Your task to perform on an android device: Open Youtube and go to the subscriptions tab Image 0: 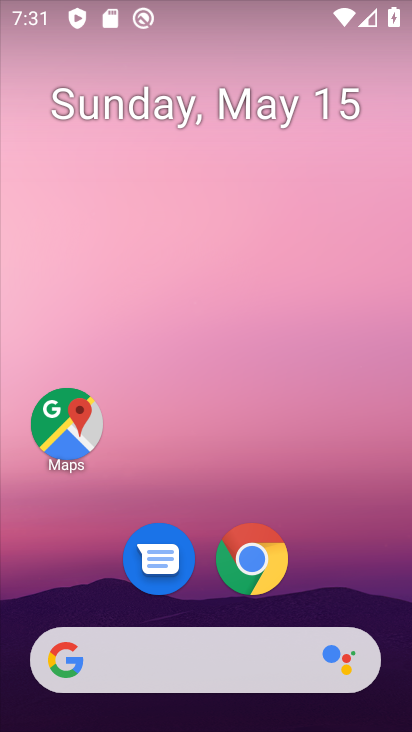
Step 0: drag from (327, 562) to (347, 117)
Your task to perform on an android device: Open Youtube and go to the subscriptions tab Image 1: 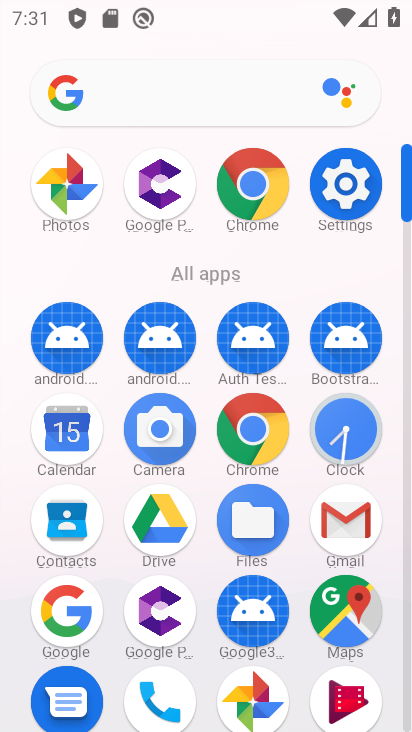
Step 1: click (403, 703)
Your task to perform on an android device: Open Youtube and go to the subscriptions tab Image 2: 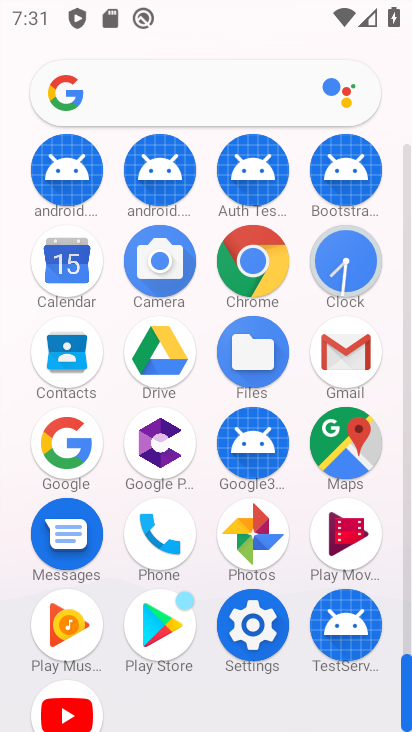
Step 2: click (81, 707)
Your task to perform on an android device: Open Youtube and go to the subscriptions tab Image 3: 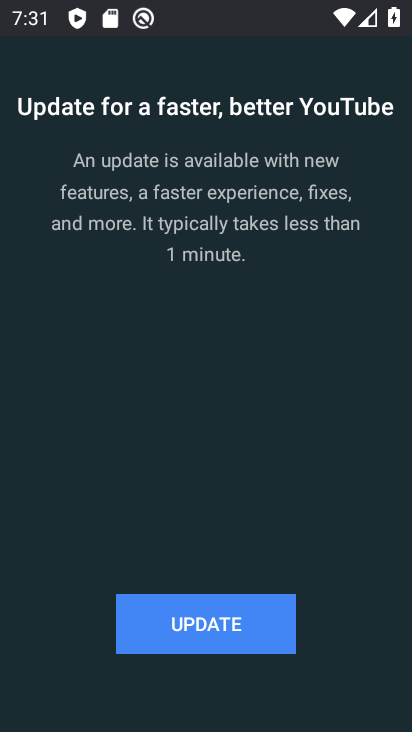
Step 3: click (184, 622)
Your task to perform on an android device: Open Youtube and go to the subscriptions tab Image 4: 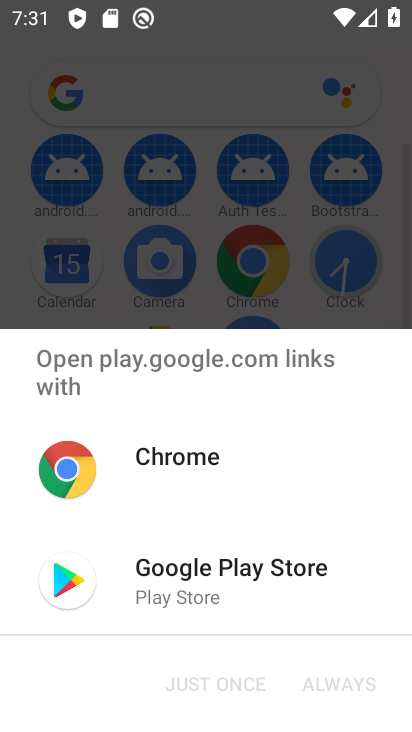
Step 4: click (225, 581)
Your task to perform on an android device: Open Youtube and go to the subscriptions tab Image 5: 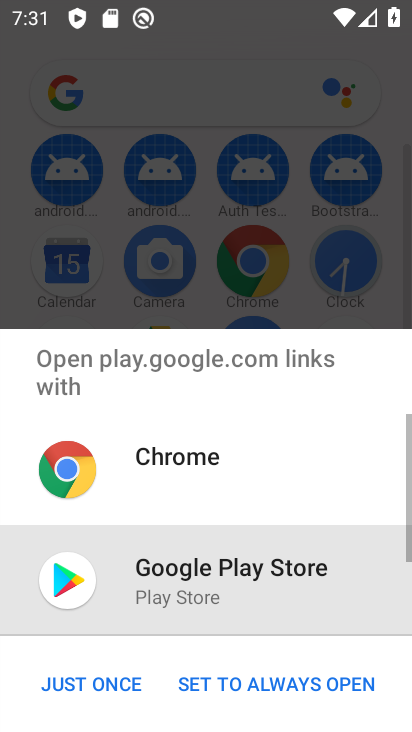
Step 5: click (217, 680)
Your task to perform on an android device: Open Youtube and go to the subscriptions tab Image 6: 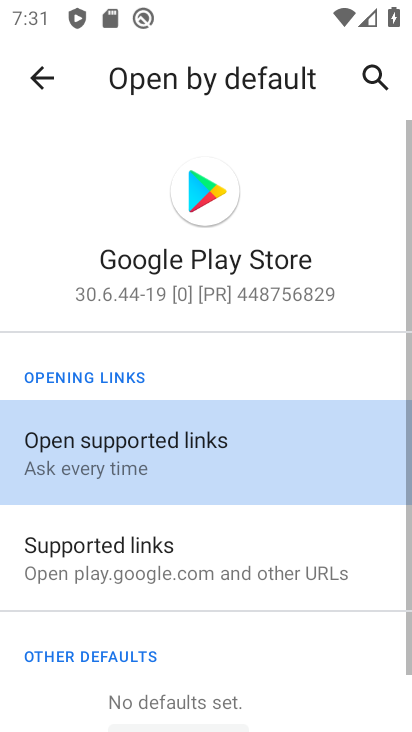
Step 6: click (53, 96)
Your task to perform on an android device: Open Youtube and go to the subscriptions tab Image 7: 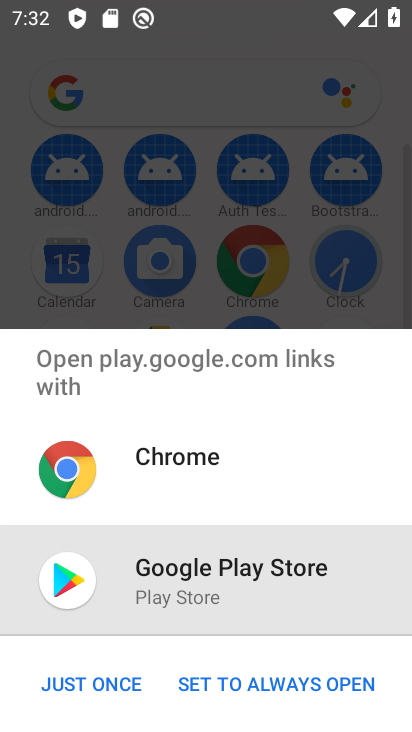
Step 7: click (105, 699)
Your task to perform on an android device: Open Youtube and go to the subscriptions tab Image 8: 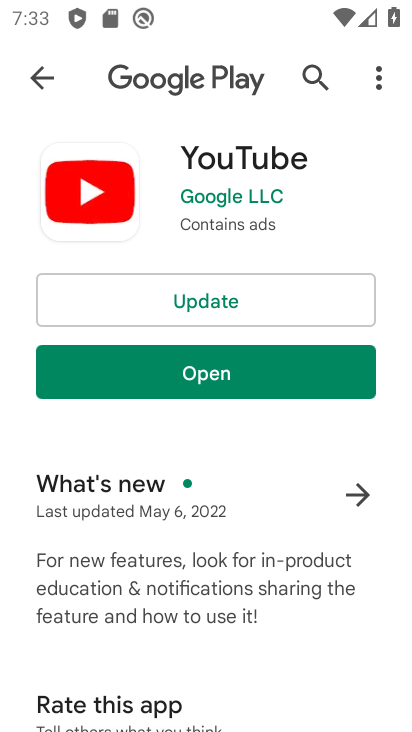
Step 8: click (224, 291)
Your task to perform on an android device: Open Youtube and go to the subscriptions tab Image 9: 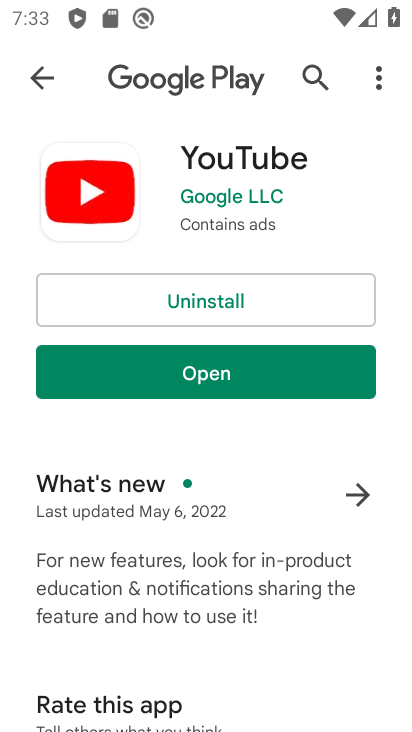
Step 9: click (242, 374)
Your task to perform on an android device: Open Youtube and go to the subscriptions tab Image 10: 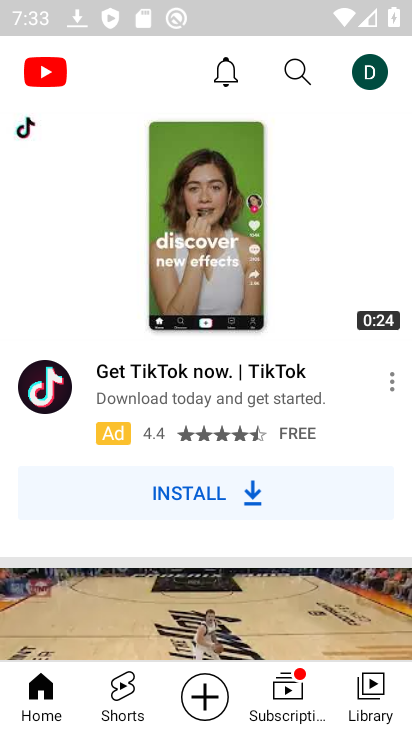
Step 10: click (287, 692)
Your task to perform on an android device: Open Youtube and go to the subscriptions tab Image 11: 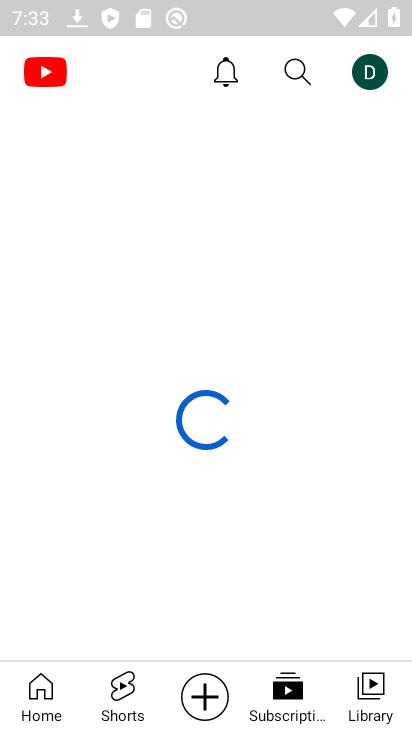
Step 11: task complete